Your task to perform on an android device: Open Yahoo.com Image 0: 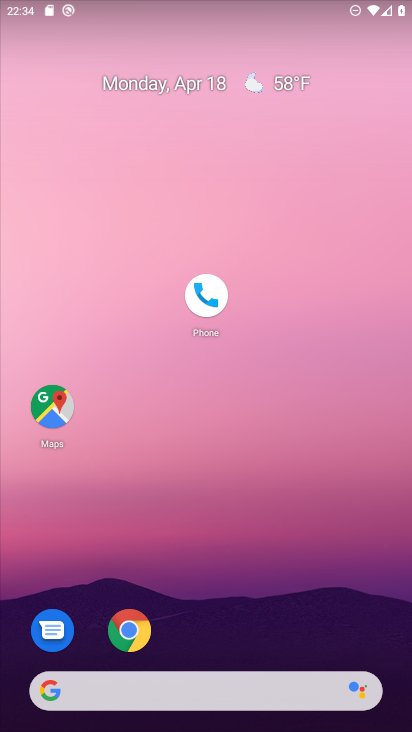
Step 0: drag from (301, 635) to (302, 147)
Your task to perform on an android device: Open Yahoo.com Image 1: 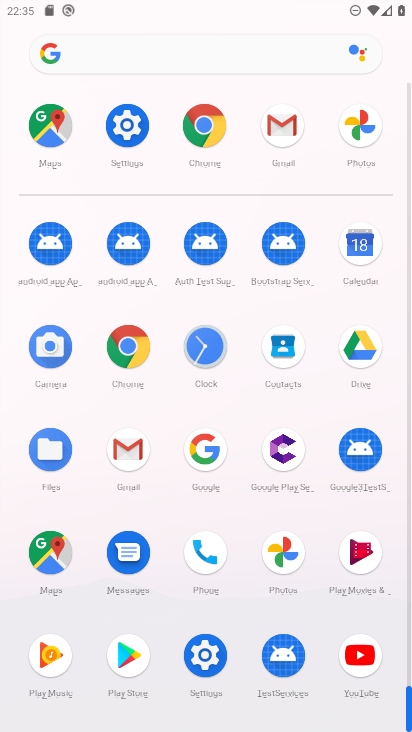
Step 1: click (124, 350)
Your task to perform on an android device: Open Yahoo.com Image 2: 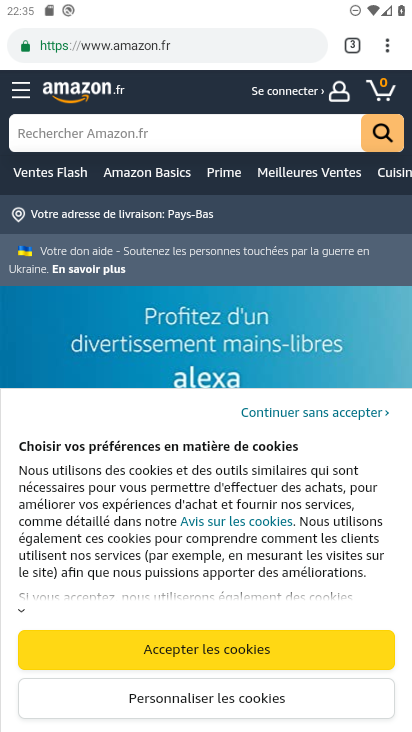
Step 2: click (268, 41)
Your task to perform on an android device: Open Yahoo.com Image 3: 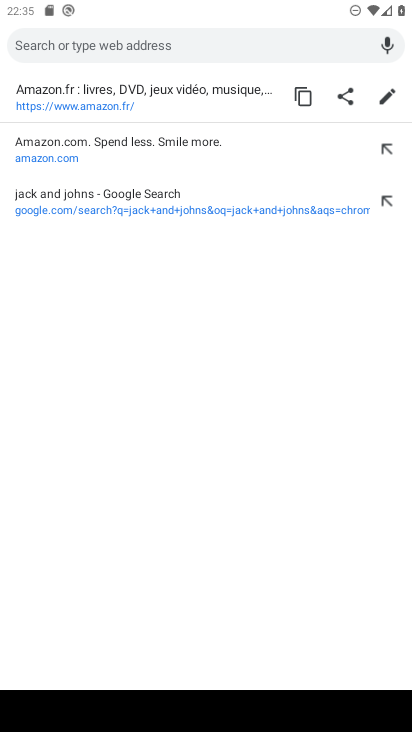
Step 3: type "yahoo.com"
Your task to perform on an android device: Open Yahoo.com Image 4: 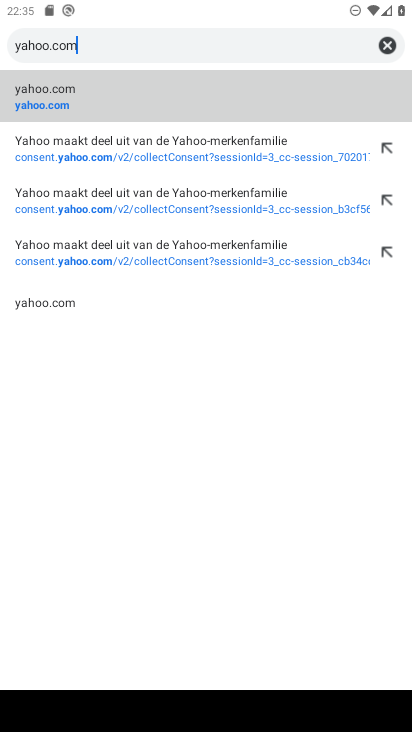
Step 4: click (172, 100)
Your task to perform on an android device: Open Yahoo.com Image 5: 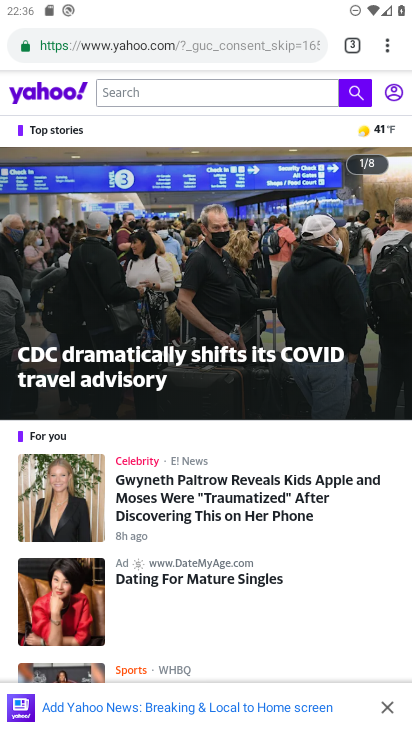
Step 5: task complete